Your task to perform on an android device: change alarm snooze length Image 0: 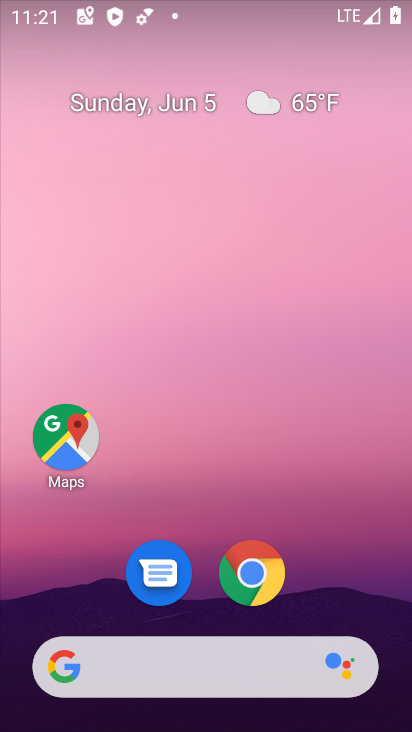
Step 0: drag from (183, 546) to (203, 16)
Your task to perform on an android device: change alarm snooze length Image 1: 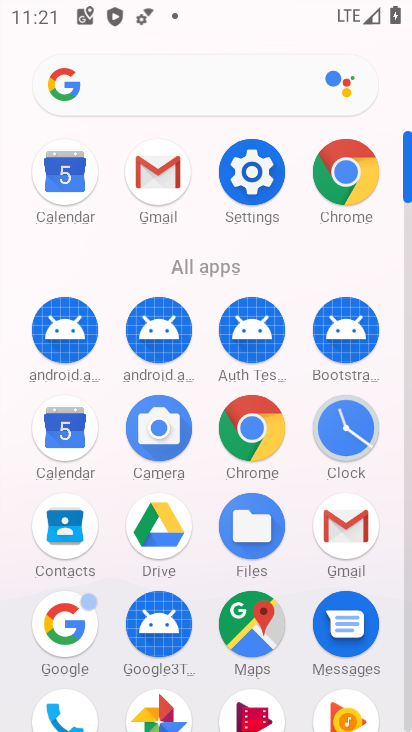
Step 1: drag from (216, 269) to (207, 47)
Your task to perform on an android device: change alarm snooze length Image 2: 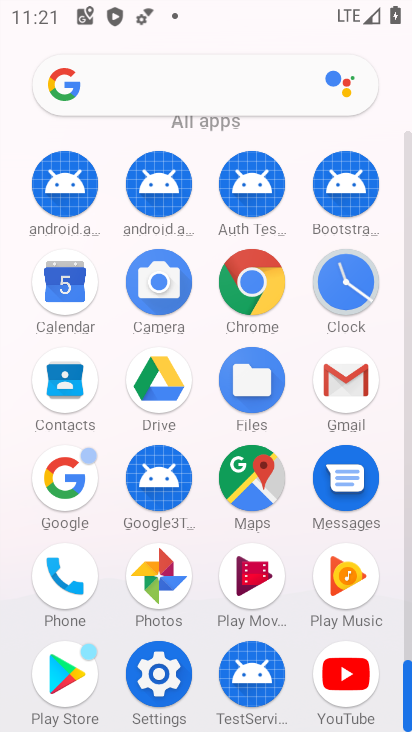
Step 2: click (346, 292)
Your task to perform on an android device: change alarm snooze length Image 3: 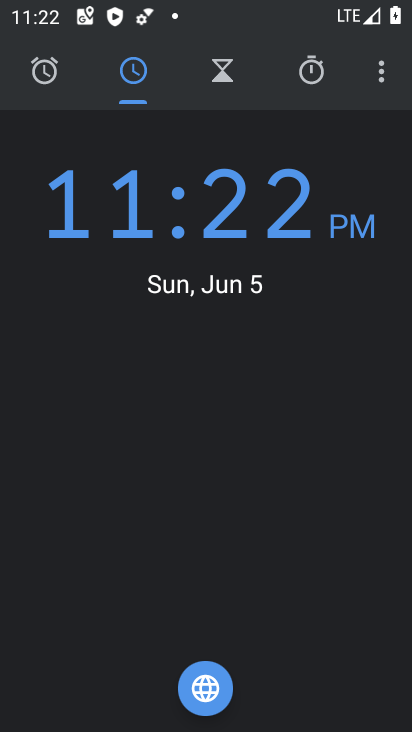
Step 3: click (389, 76)
Your task to perform on an android device: change alarm snooze length Image 4: 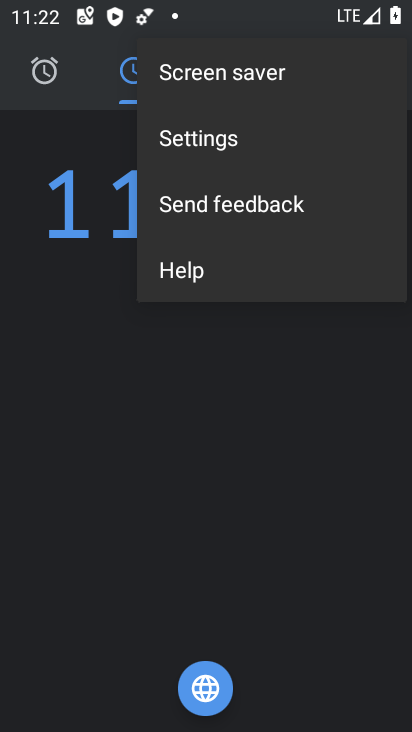
Step 4: click (257, 155)
Your task to perform on an android device: change alarm snooze length Image 5: 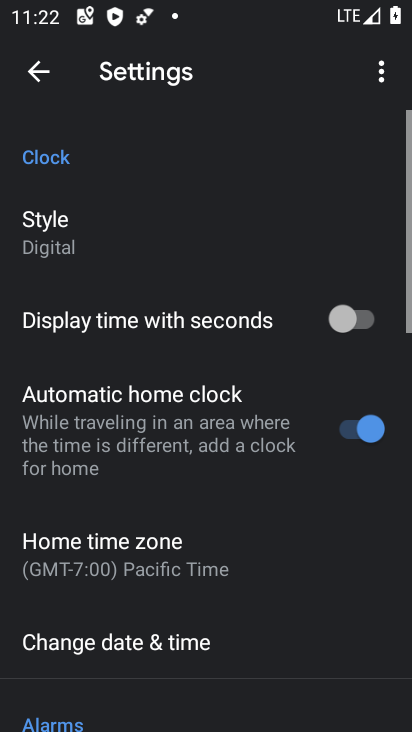
Step 5: drag from (174, 527) to (165, 101)
Your task to perform on an android device: change alarm snooze length Image 6: 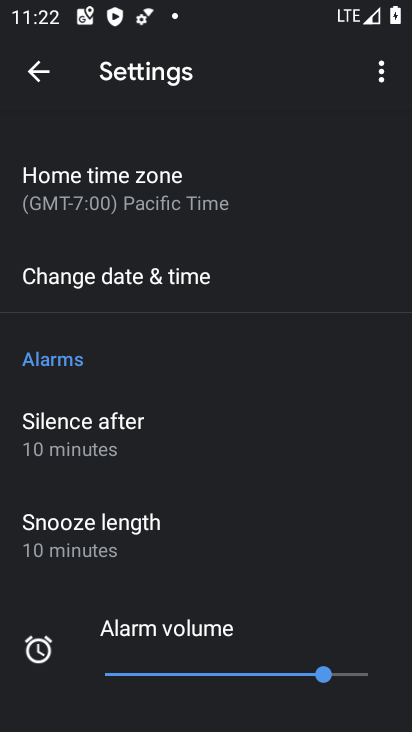
Step 6: click (176, 532)
Your task to perform on an android device: change alarm snooze length Image 7: 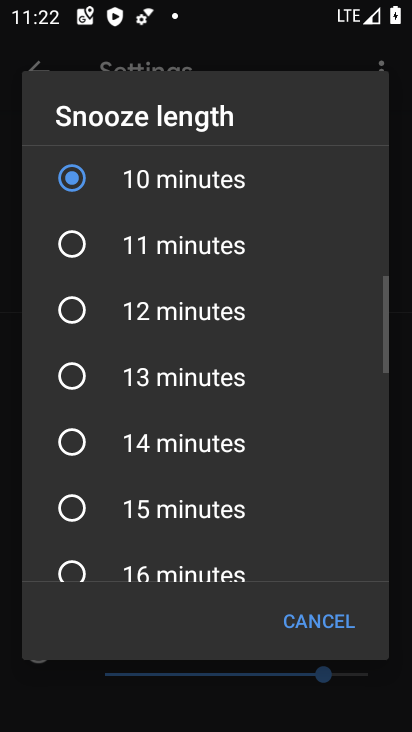
Step 7: click (187, 251)
Your task to perform on an android device: change alarm snooze length Image 8: 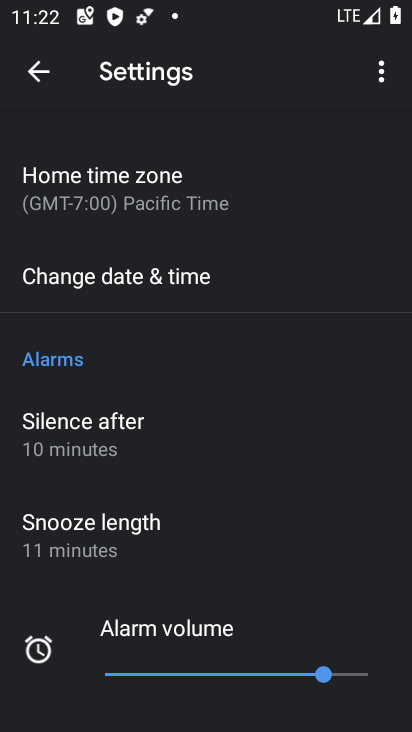
Step 8: task complete